Your task to perform on an android device: open app "AliExpress" (install if not already installed) Image 0: 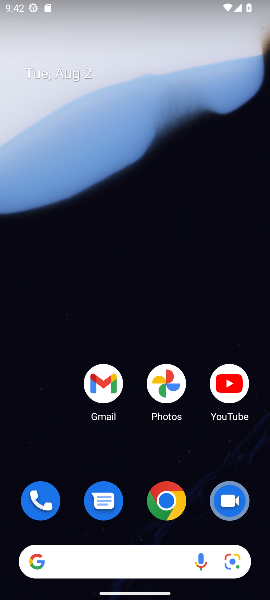
Step 0: drag from (151, 541) to (211, 14)
Your task to perform on an android device: open app "AliExpress" (install if not already installed) Image 1: 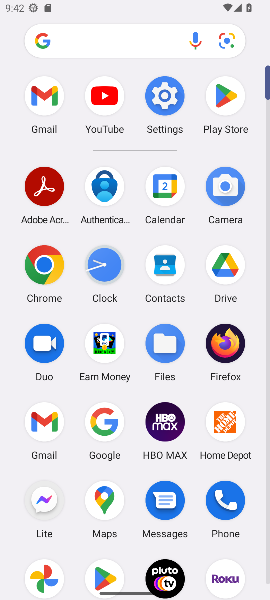
Step 1: click (103, 573)
Your task to perform on an android device: open app "AliExpress" (install if not already installed) Image 2: 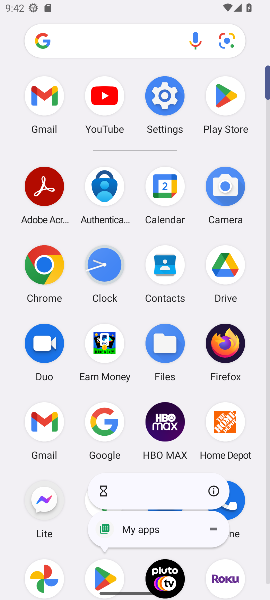
Step 2: click (219, 488)
Your task to perform on an android device: open app "AliExpress" (install if not already installed) Image 3: 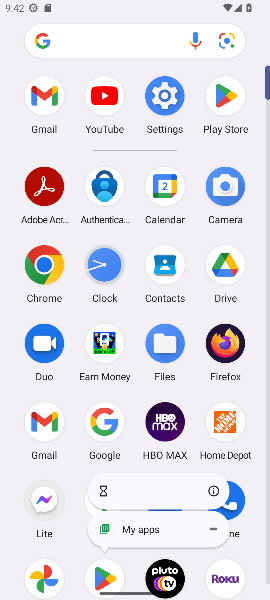
Step 3: click (219, 488)
Your task to perform on an android device: open app "AliExpress" (install if not already installed) Image 4: 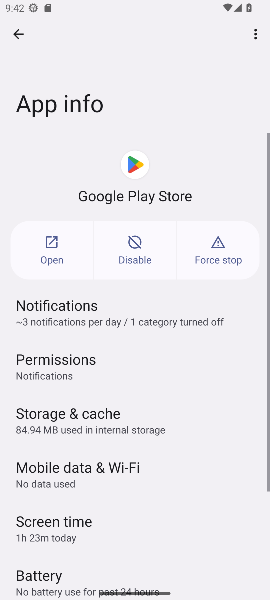
Step 4: click (55, 251)
Your task to perform on an android device: open app "AliExpress" (install if not already installed) Image 5: 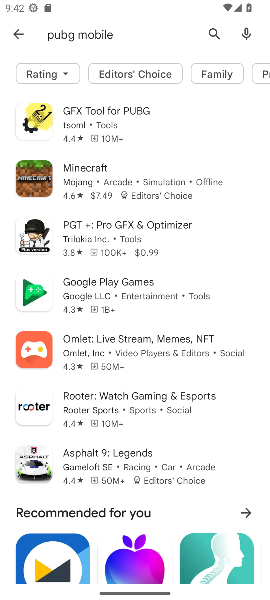
Step 5: click (211, 31)
Your task to perform on an android device: open app "AliExpress" (install if not already installed) Image 6: 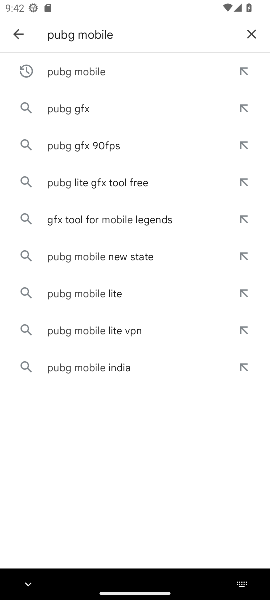
Step 6: click (250, 31)
Your task to perform on an android device: open app "AliExpress" (install if not already installed) Image 7: 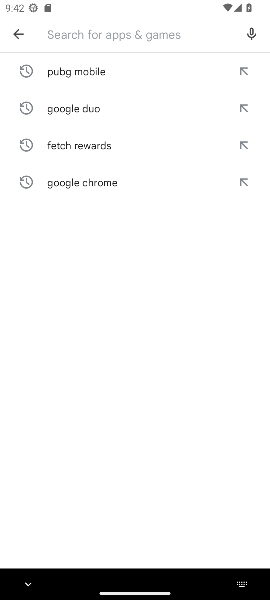
Step 7: click (96, 32)
Your task to perform on an android device: open app "AliExpress" (install if not already installed) Image 8: 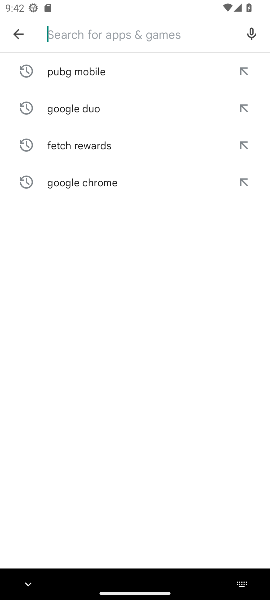
Step 8: type "AliExpress"
Your task to perform on an android device: open app "AliExpress" (install if not already installed) Image 9: 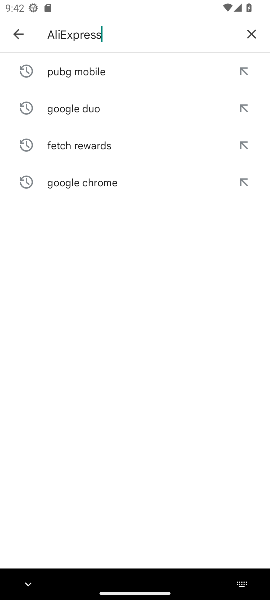
Step 9: type ""
Your task to perform on an android device: open app "AliExpress" (install if not already installed) Image 10: 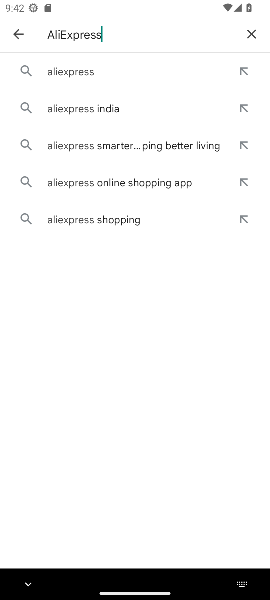
Step 10: click (90, 66)
Your task to perform on an android device: open app "AliExpress" (install if not already installed) Image 11: 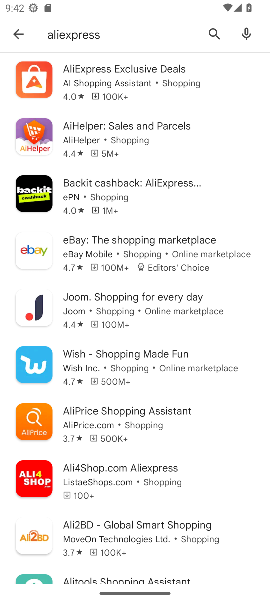
Step 11: click (92, 89)
Your task to perform on an android device: open app "AliExpress" (install if not already installed) Image 12: 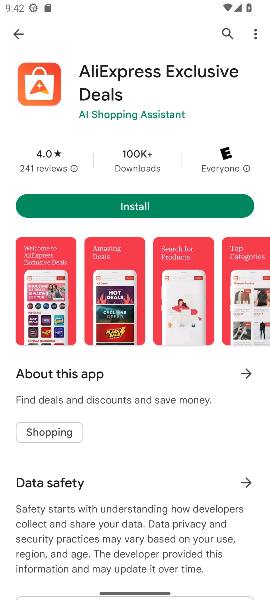
Step 12: drag from (152, 269) to (162, 563)
Your task to perform on an android device: open app "AliExpress" (install if not already installed) Image 13: 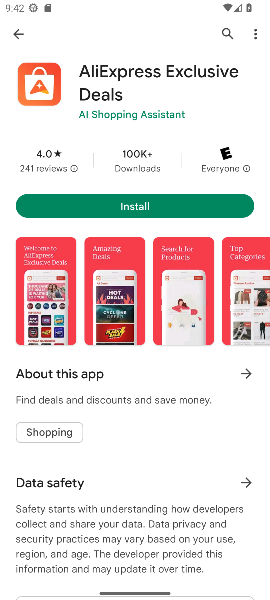
Step 13: click (148, 208)
Your task to perform on an android device: open app "AliExpress" (install if not already installed) Image 14: 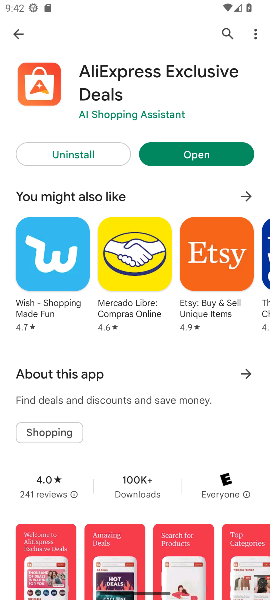
Step 14: drag from (199, 104) to (172, 536)
Your task to perform on an android device: open app "AliExpress" (install if not already installed) Image 15: 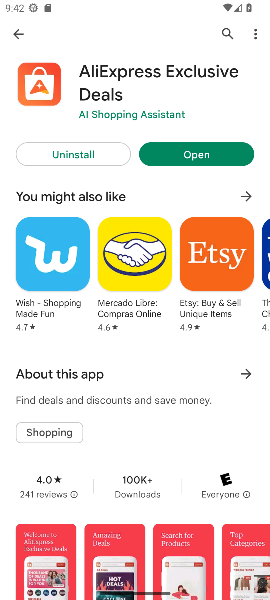
Step 15: click (196, 155)
Your task to perform on an android device: open app "AliExpress" (install if not already installed) Image 16: 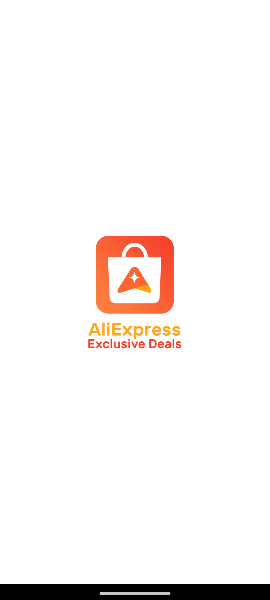
Step 16: task complete